Your task to perform on an android device: Open Google Chrome and click the shortcut for Amazon.com Image 0: 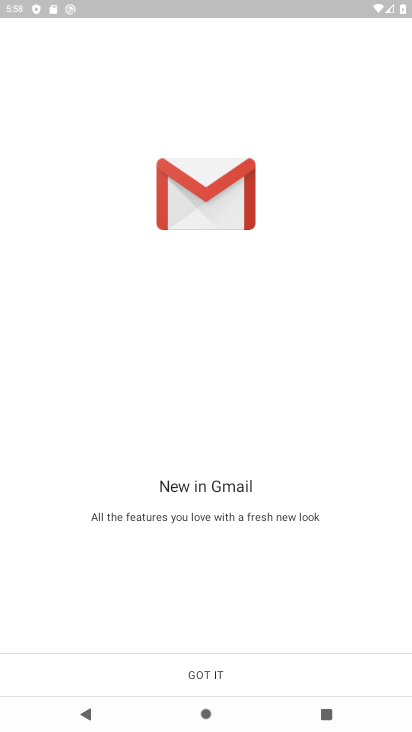
Step 0: press home button
Your task to perform on an android device: Open Google Chrome and click the shortcut for Amazon.com Image 1: 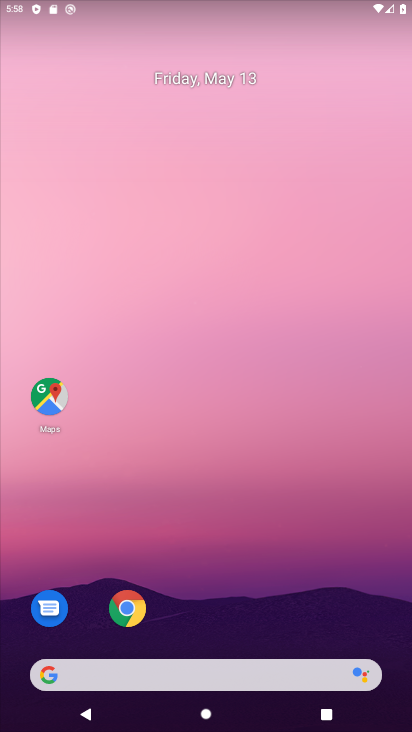
Step 1: click (133, 604)
Your task to perform on an android device: Open Google Chrome and click the shortcut for Amazon.com Image 2: 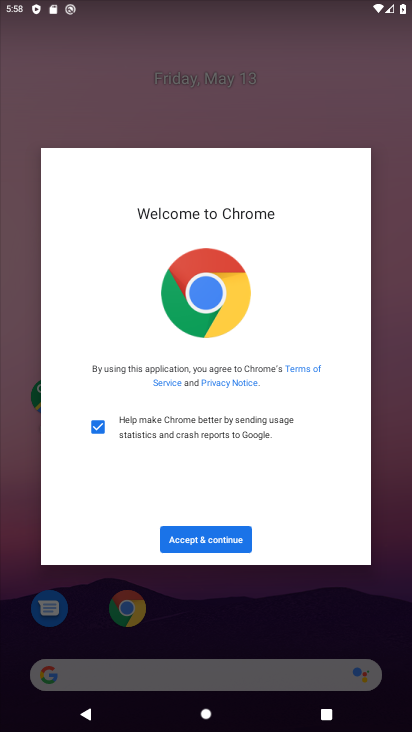
Step 2: click (238, 538)
Your task to perform on an android device: Open Google Chrome and click the shortcut for Amazon.com Image 3: 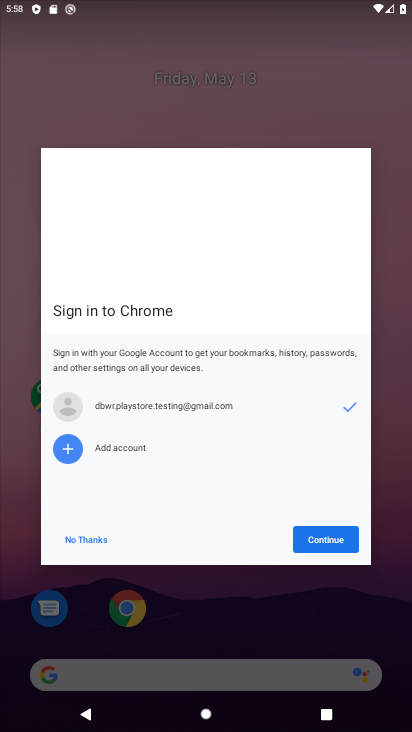
Step 3: click (317, 538)
Your task to perform on an android device: Open Google Chrome and click the shortcut for Amazon.com Image 4: 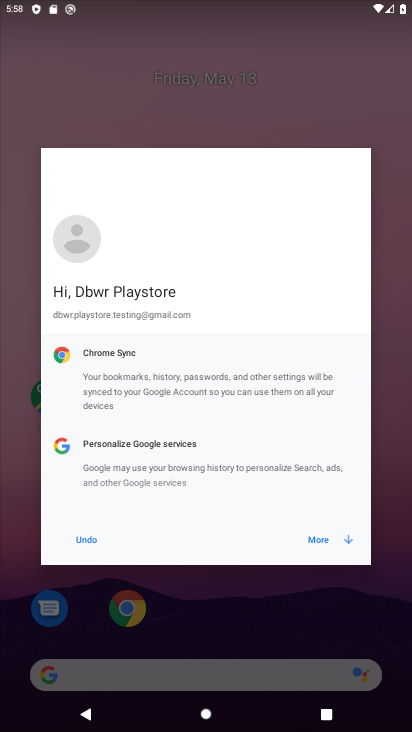
Step 4: click (316, 535)
Your task to perform on an android device: Open Google Chrome and click the shortcut for Amazon.com Image 5: 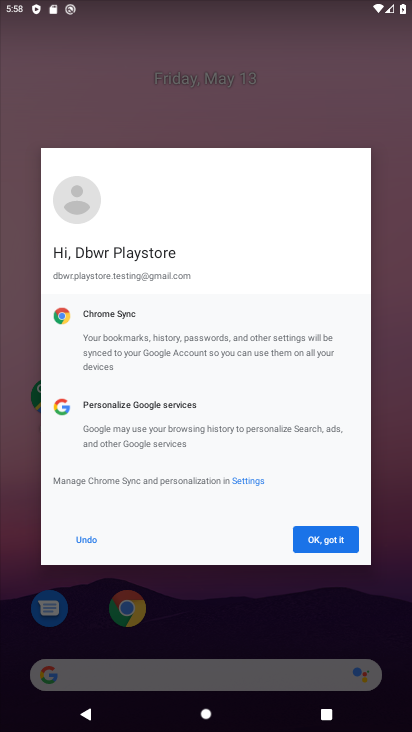
Step 5: click (314, 538)
Your task to perform on an android device: Open Google Chrome and click the shortcut for Amazon.com Image 6: 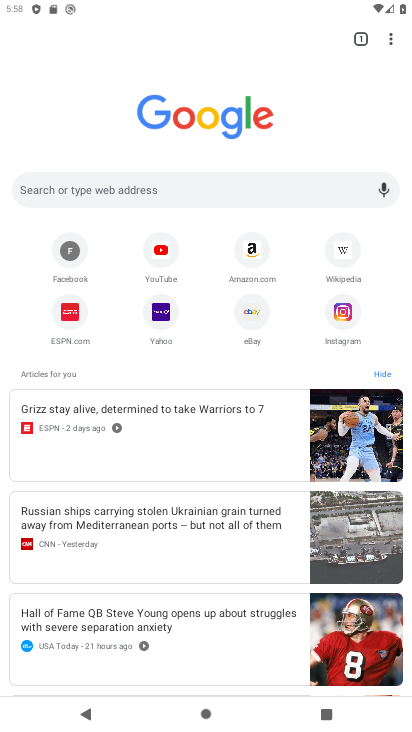
Step 6: click (393, 36)
Your task to perform on an android device: Open Google Chrome and click the shortcut for Amazon.com Image 7: 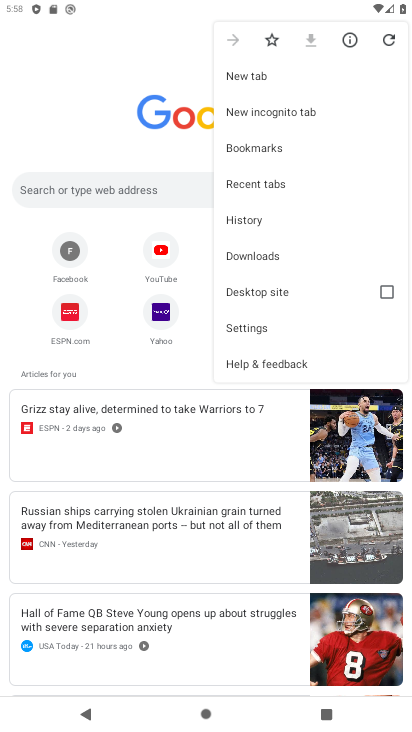
Step 7: click (114, 97)
Your task to perform on an android device: Open Google Chrome and click the shortcut for Amazon.com Image 8: 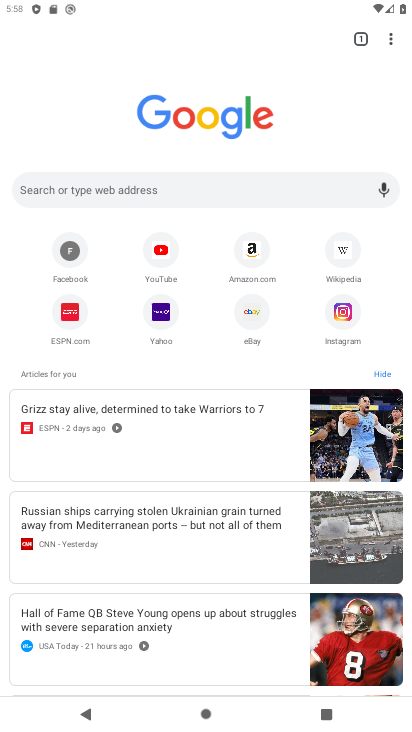
Step 8: click (256, 254)
Your task to perform on an android device: Open Google Chrome and click the shortcut for Amazon.com Image 9: 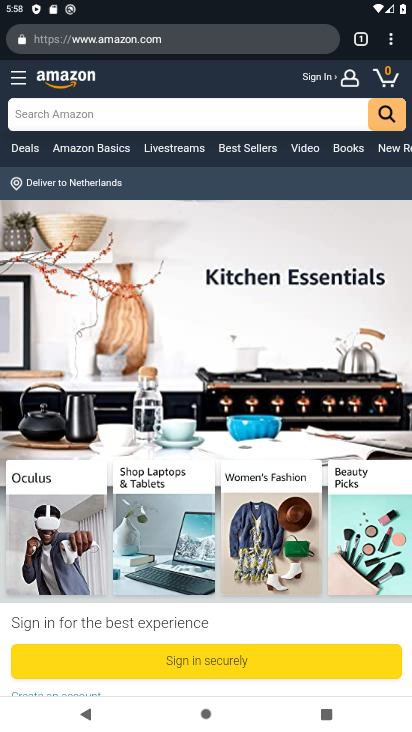
Step 9: task complete